Your task to perform on an android device: What's the weather today? Image 0: 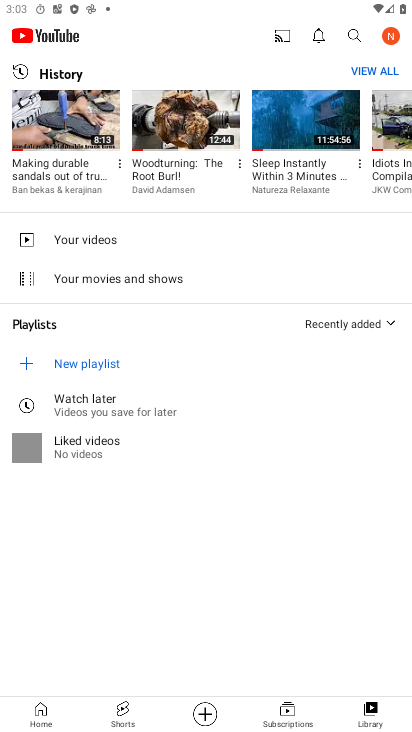
Step 0: press home button
Your task to perform on an android device: What's the weather today? Image 1: 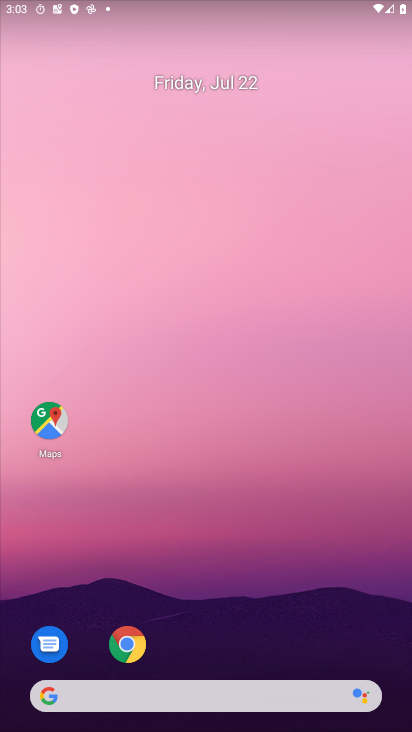
Step 1: drag from (234, 663) to (194, 216)
Your task to perform on an android device: What's the weather today? Image 2: 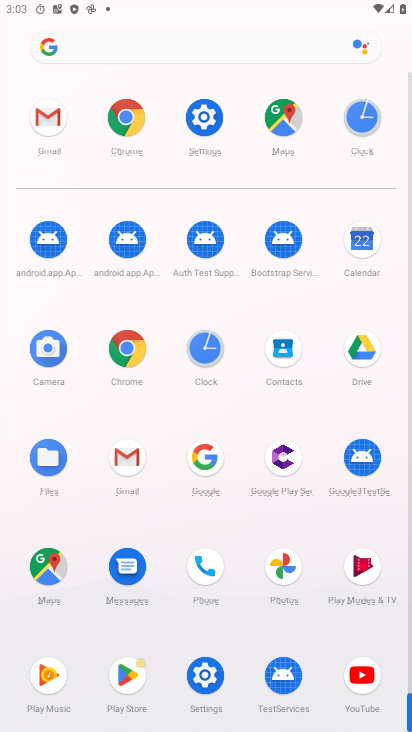
Step 2: click (196, 467)
Your task to perform on an android device: What's the weather today? Image 3: 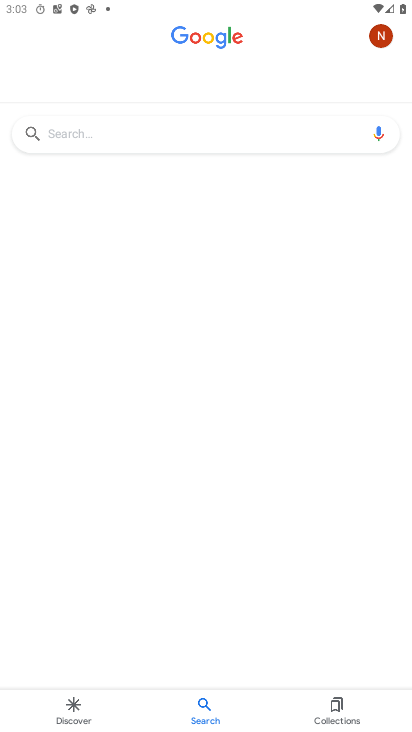
Step 3: click (214, 134)
Your task to perform on an android device: What's the weather today? Image 4: 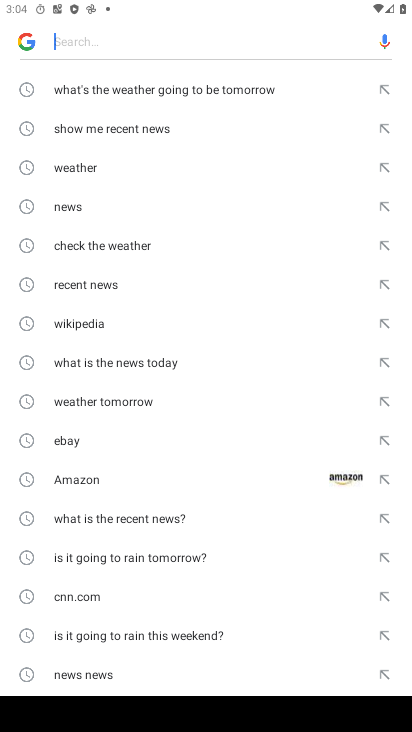
Step 4: click (109, 172)
Your task to perform on an android device: What's the weather today? Image 5: 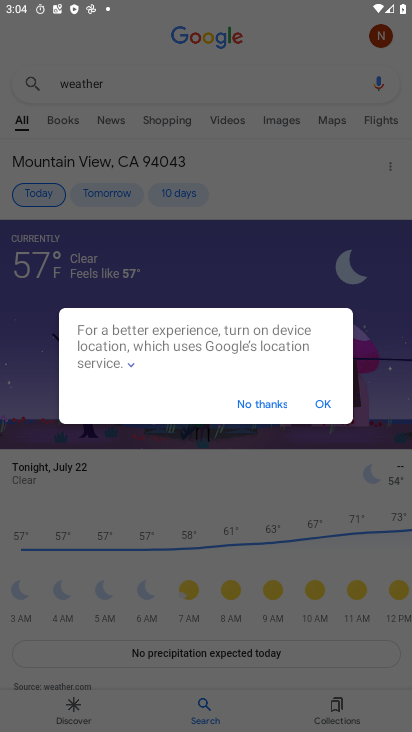
Step 5: click (328, 405)
Your task to perform on an android device: What's the weather today? Image 6: 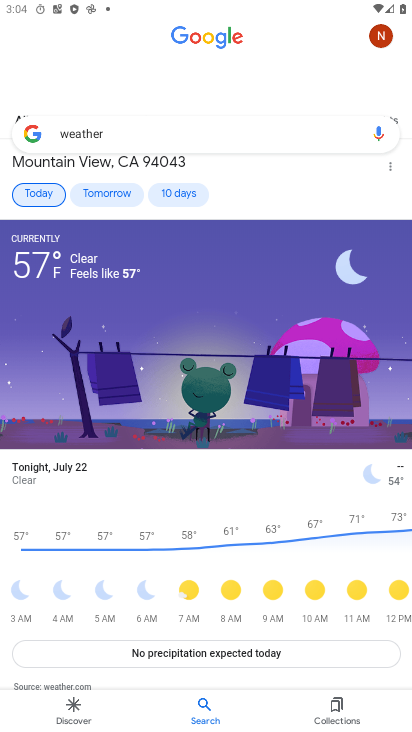
Step 6: task complete